Your task to perform on an android device: manage bookmarks in the chrome app Image 0: 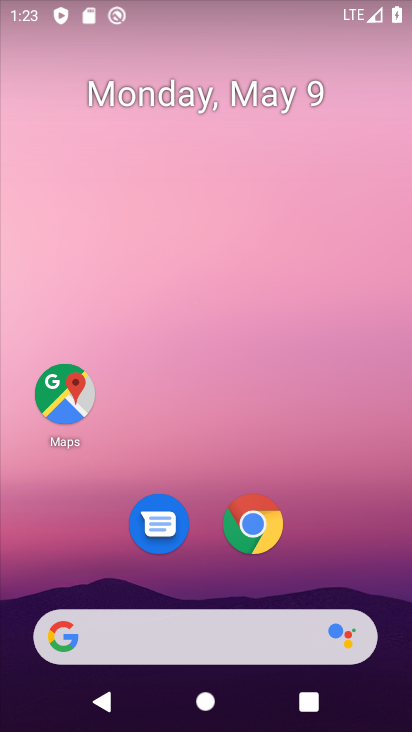
Step 0: drag from (307, 546) to (267, 72)
Your task to perform on an android device: manage bookmarks in the chrome app Image 1: 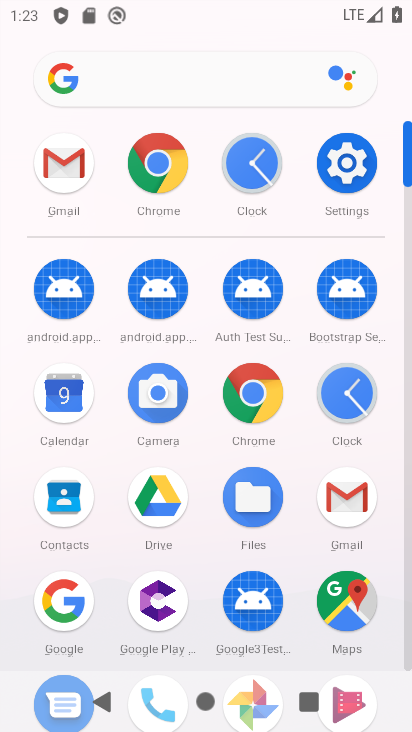
Step 1: click (163, 153)
Your task to perform on an android device: manage bookmarks in the chrome app Image 2: 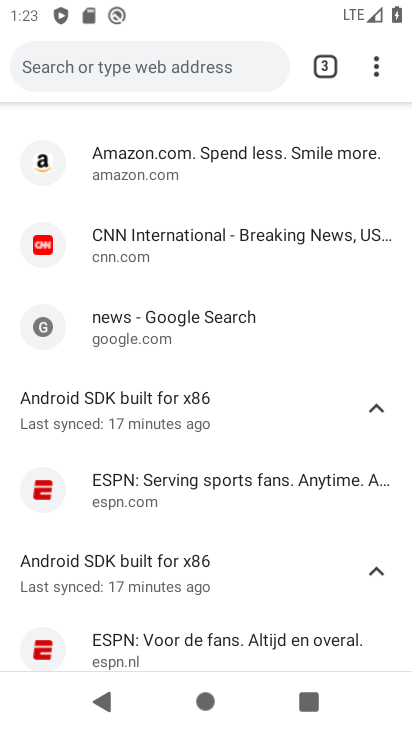
Step 2: drag from (369, 62) to (173, 262)
Your task to perform on an android device: manage bookmarks in the chrome app Image 3: 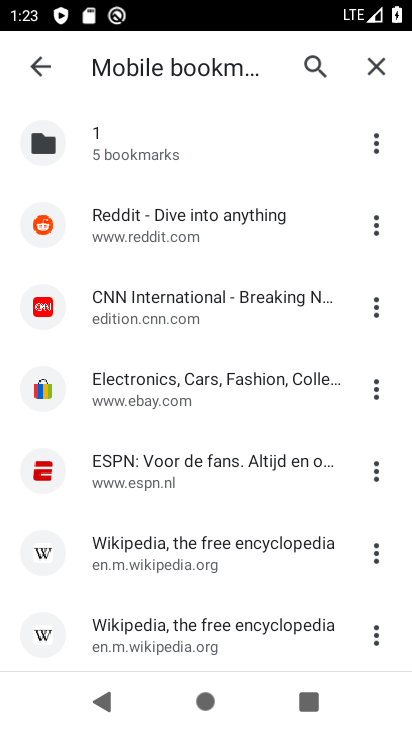
Step 3: click (383, 222)
Your task to perform on an android device: manage bookmarks in the chrome app Image 4: 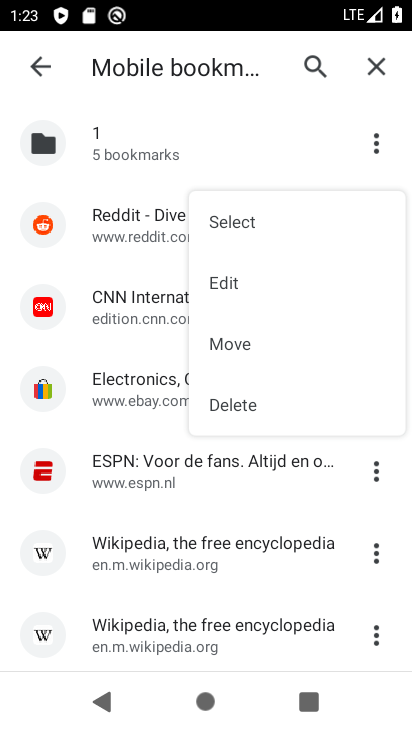
Step 4: click (262, 291)
Your task to perform on an android device: manage bookmarks in the chrome app Image 5: 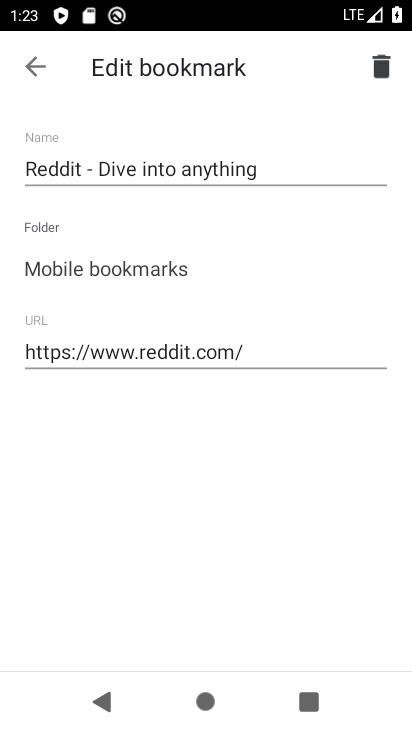
Step 5: click (26, 46)
Your task to perform on an android device: manage bookmarks in the chrome app Image 6: 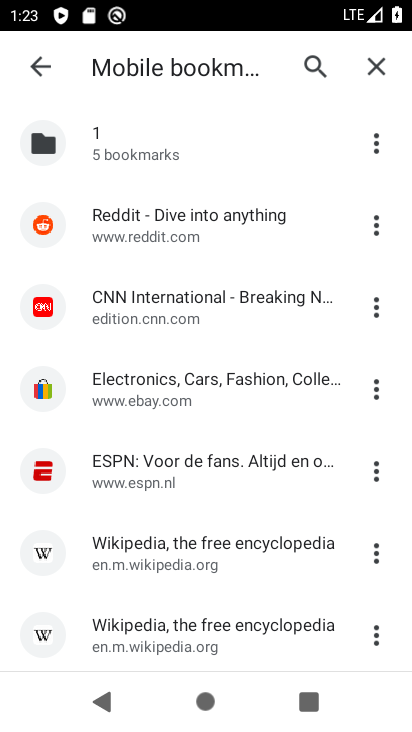
Step 6: task complete